Your task to perform on an android device: turn on airplane mode Image 0: 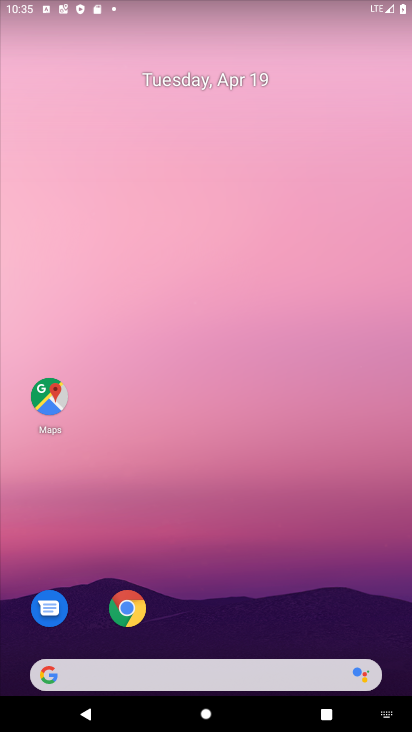
Step 0: drag from (375, 613) to (332, 171)
Your task to perform on an android device: turn on airplane mode Image 1: 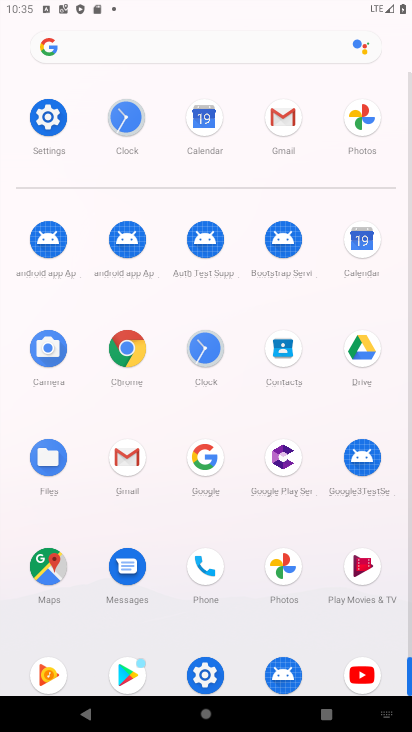
Step 1: click (204, 677)
Your task to perform on an android device: turn on airplane mode Image 2: 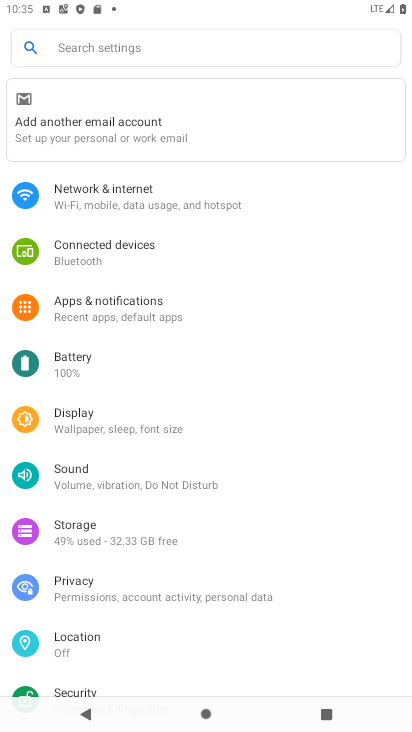
Step 2: click (116, 195)
Your task to perform on an android device: turn on airplane mode Image 3: 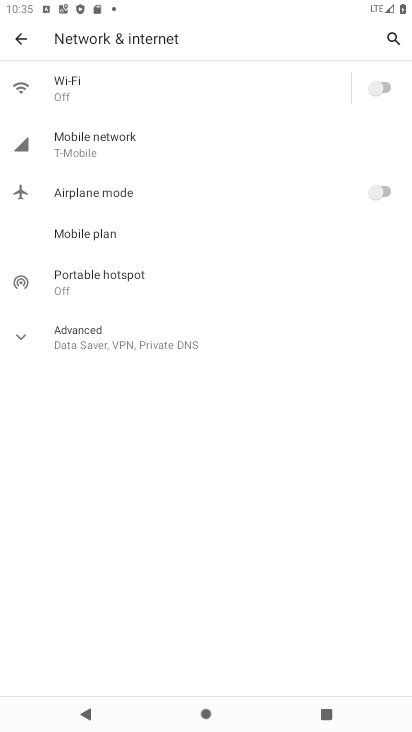
Step 3: click (385, 192)
Your task to perform on an android device: turn on airplane mode Image 4: 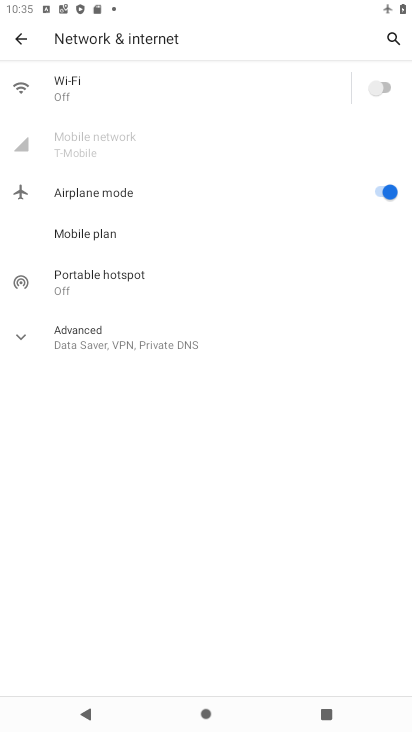
Step 4: task complete